Your task to perform on an android device: Open Google Maps Image 0: 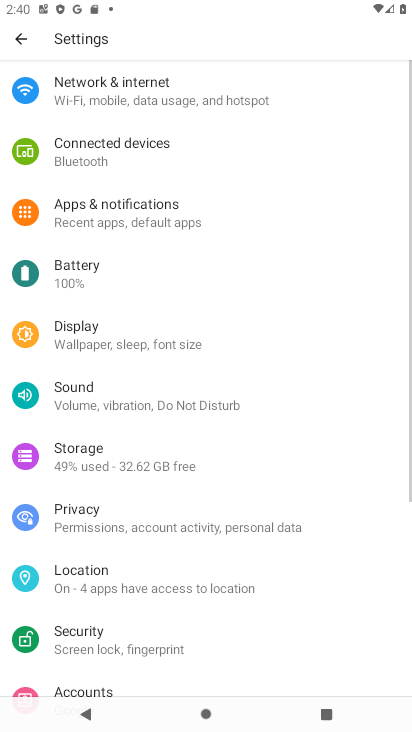
Step 0: press home button
Your task to perform on an android device: Open Google Maps Image 1: 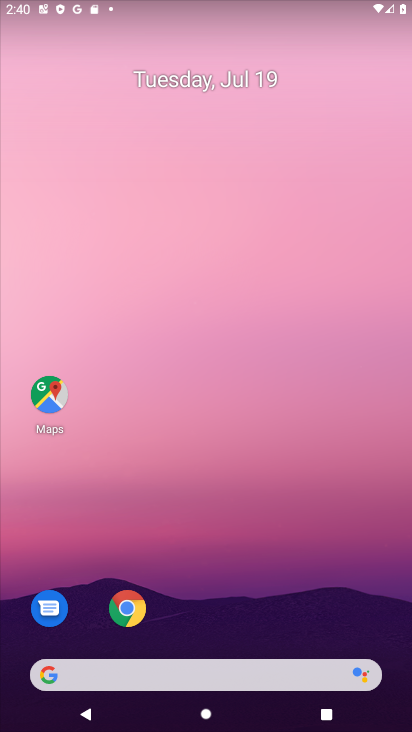
Step 1: drag from (235, 608) to (191, 112)
Your task to perform on an android device: Open Google Maps Image 2: 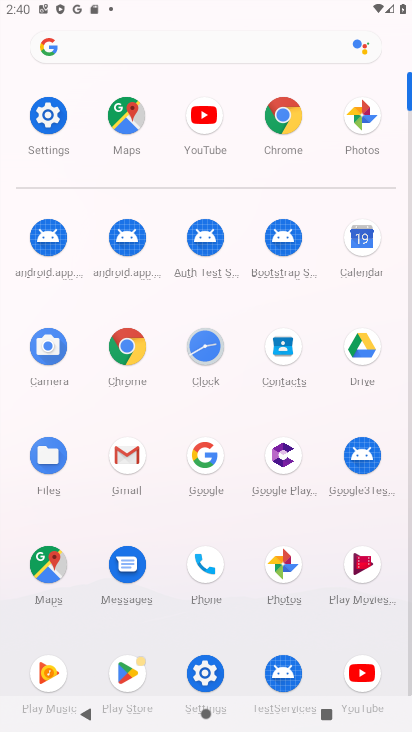
Step 2: click (49, 561)
Your task to perform on an android device: Open Google Maps Image 3: 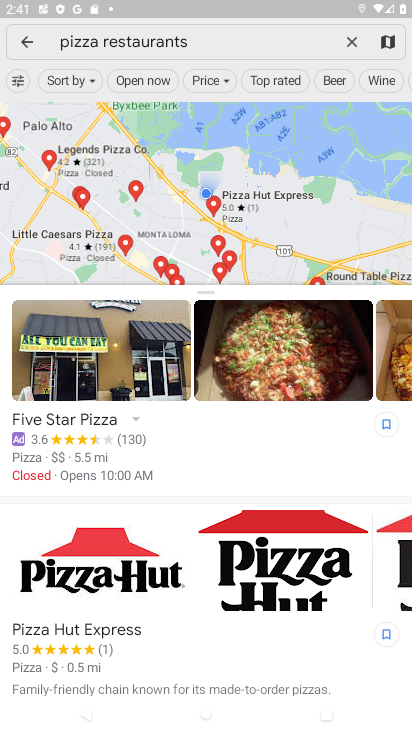
Step 3: task complete